Your task to perform on an android device: check android version Image 0: 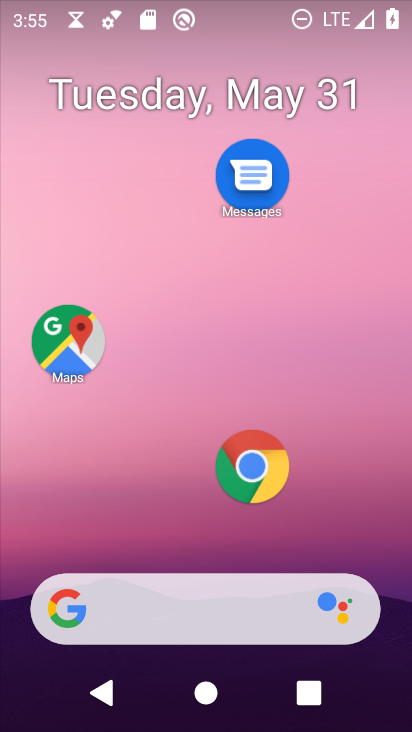
Step 0: drag from (137, 557) to (210, 10)
Your task to perform on an android device: check android version Image 1: 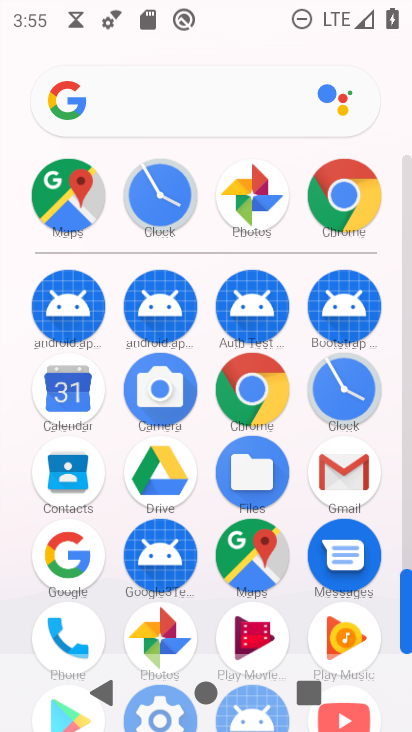
Step 1: drag from (196, 661) to (270, 131)
Your task to perform on an android device: check android version Image 2: 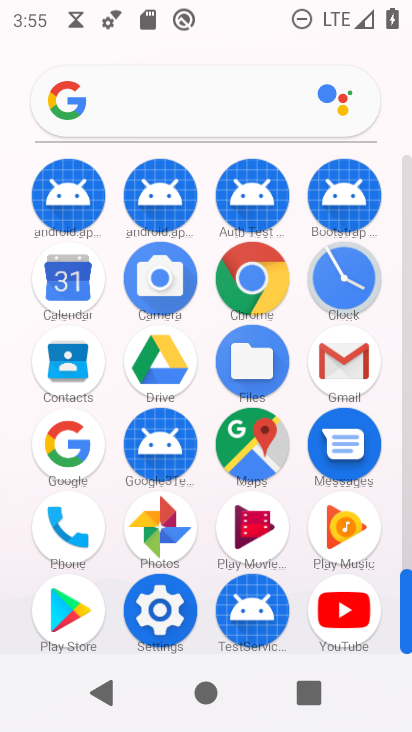
Step 2: click (154, 625)
Your task to perform on an android device: check android version Image 3: 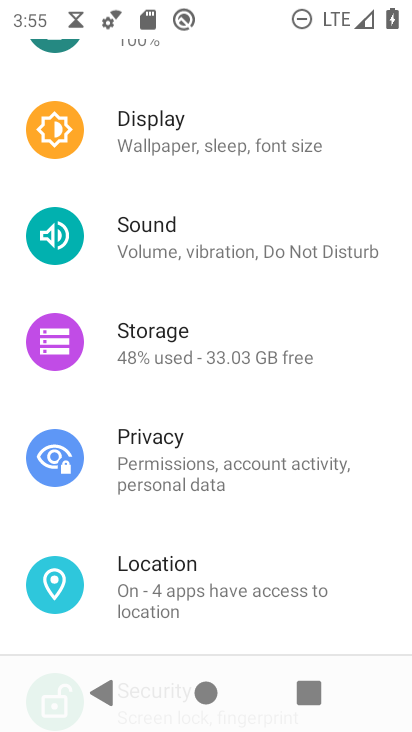
Step 3: drag from (198, 590) to (296, 40)
Your task to perform on an android device: check android version Image 4: 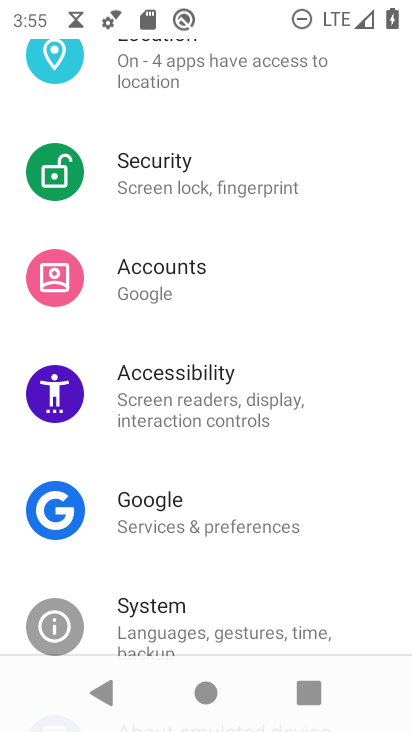
Step 4: drag from (191, 579) to (304, 19)
Your task to perform on an android device: check android version Image 5: 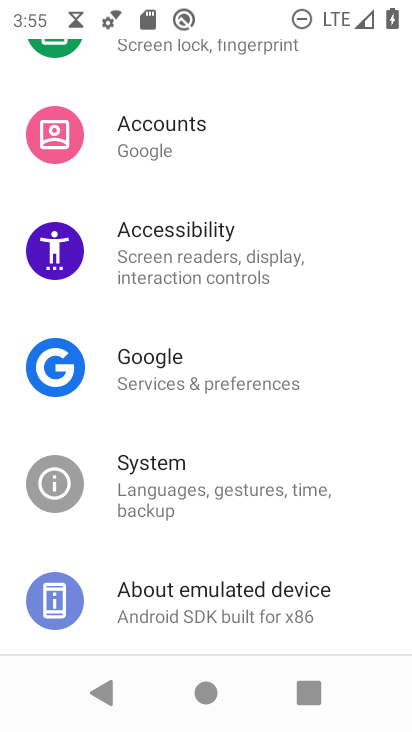
Step 5: click (173, 486)
Your task to perform on an android device: check android version Image 6: 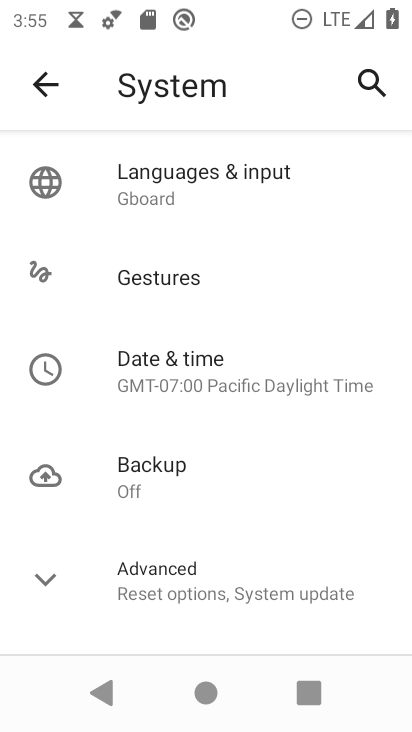
Step 6: click (36, 83)
Your task to perform on an android device: check android version Image 7: 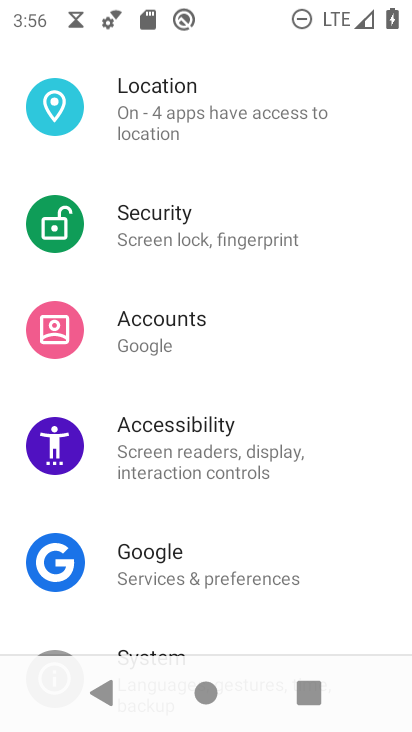
Step 7: drag from (170, 607) to (235, 47)
Your task to perform on an android device: check android version Image 8: 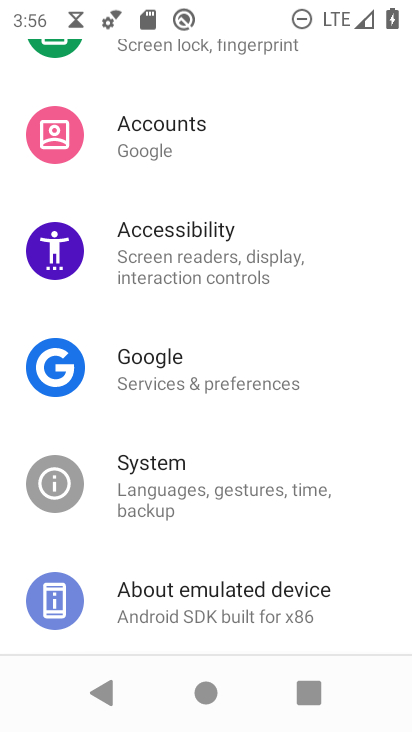
Step 8: click (173, 606)
Your task to perform on an android device: check android version Image 9: 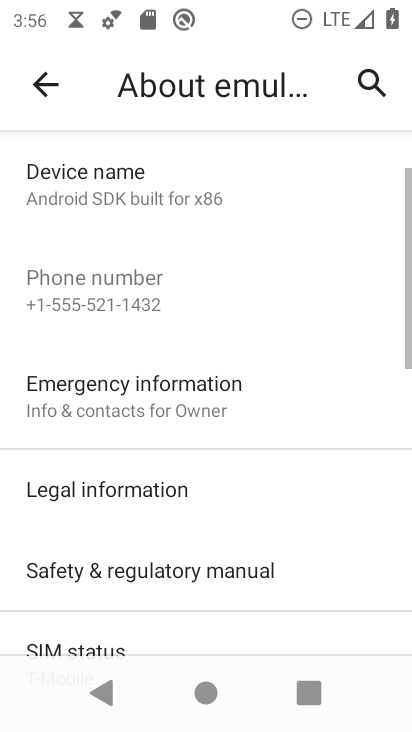
Step 9: task complete